Your task to perform on an android device: What's the weather going to be tomorrow? Image 0: 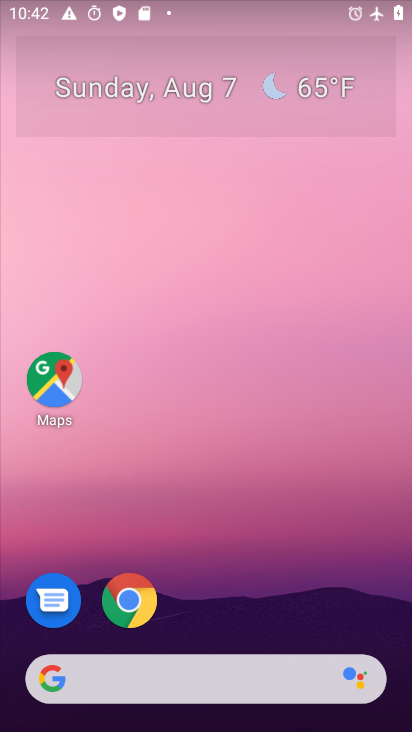
Step 0: drag from (279, 636) to (269, 325)
Your task to perform on an android device: What's the weather going to be tomorrow? Image 1: 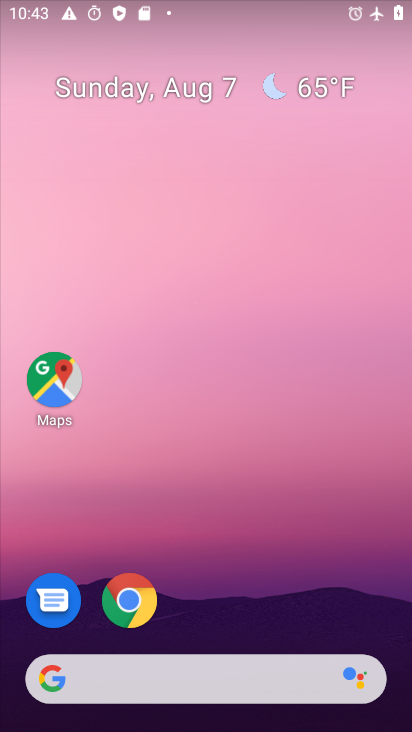
Step 1: drag from (253, 617) to (280, 168)
Your task to perform on an android device: What's the weather going to be tomorrow? Image 2: 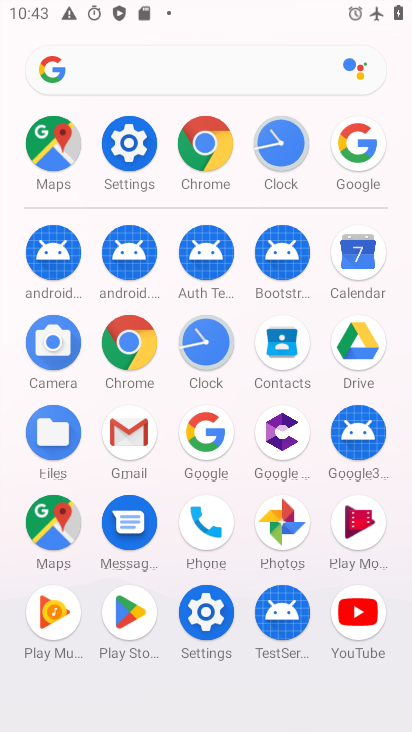
Step 2: click (197, 445)
Your task to perform on an android device: What's the weather going to be tomorrow? Image 3: 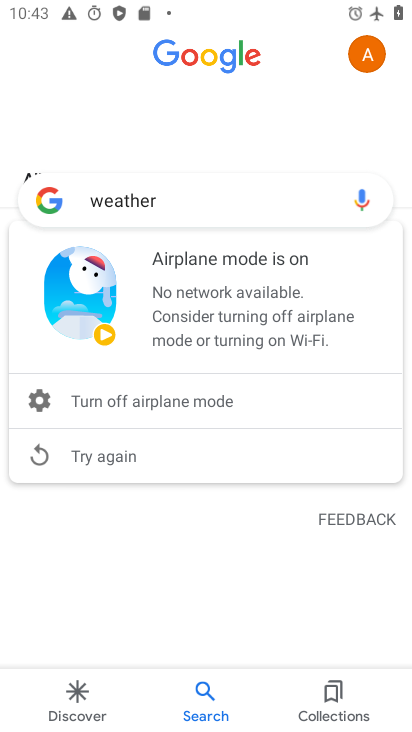
Step 3: task complete